Your task to perform on an android device: Open internet settings Image 0: 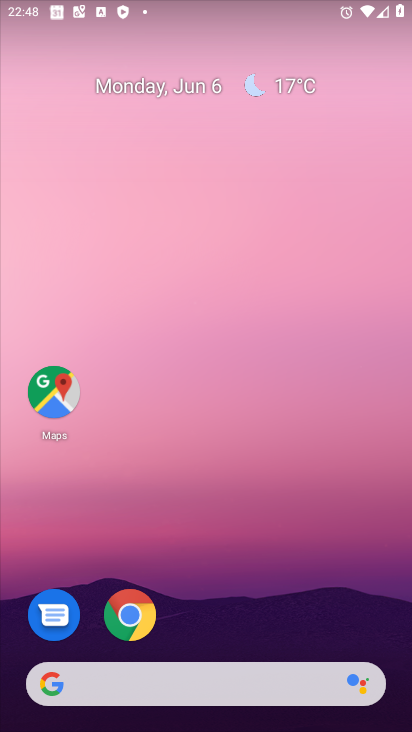
Step 0: drag from (395, 710) to (354, 57)
Your task to perform on an android device: Open internet settings Image 1: 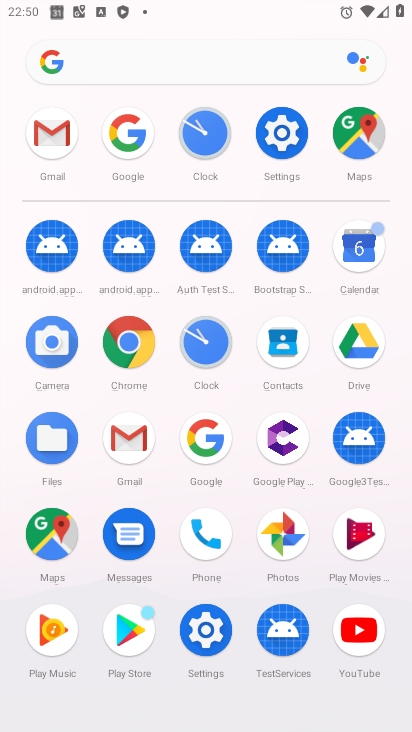
Step 1: click (282, 128)
Your task to perform on an android device: Open internet settings Image 2: 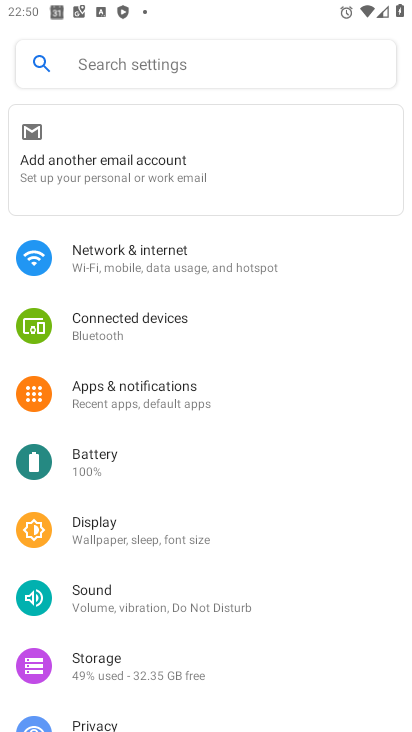
Step 2: click (186, 264)
Your task to perform on an android device: Open internet settings Image 3: 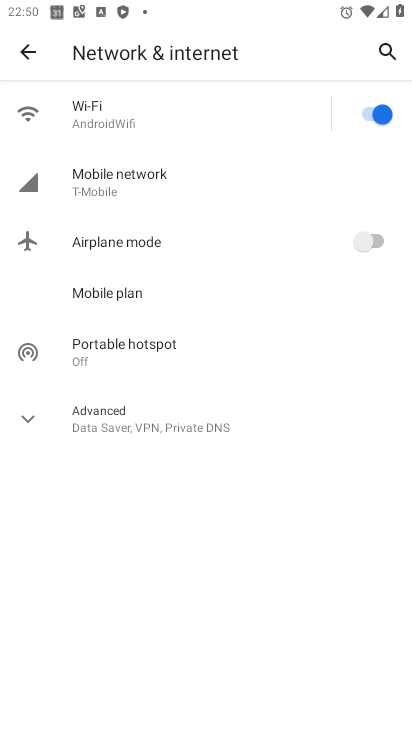
Step 3: click (31, 406)
Your task to perform on an android device: Open internet settings Image 4: 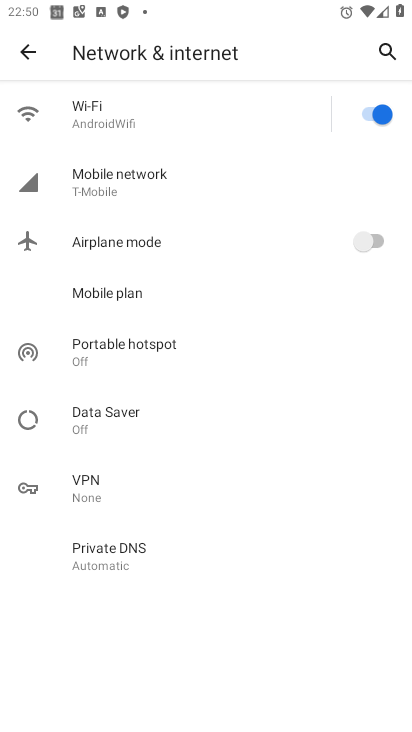
Step 4: task complete